Your task to perform on an android device: Open CNN.com Image 0: 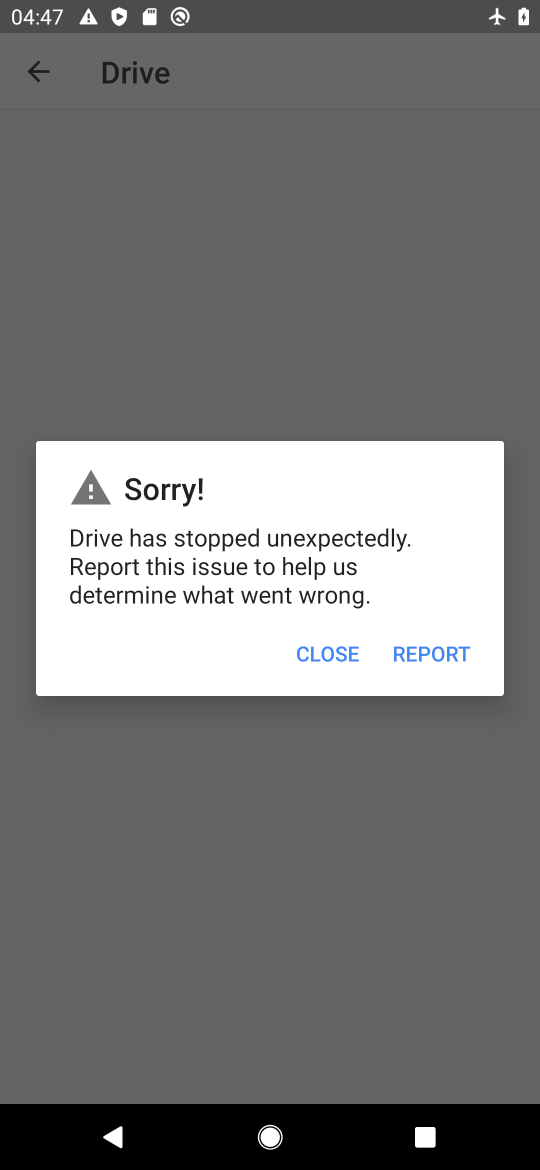
Step 0: press home button
Your task to perform on an android device: Open CNN.com Image 1: 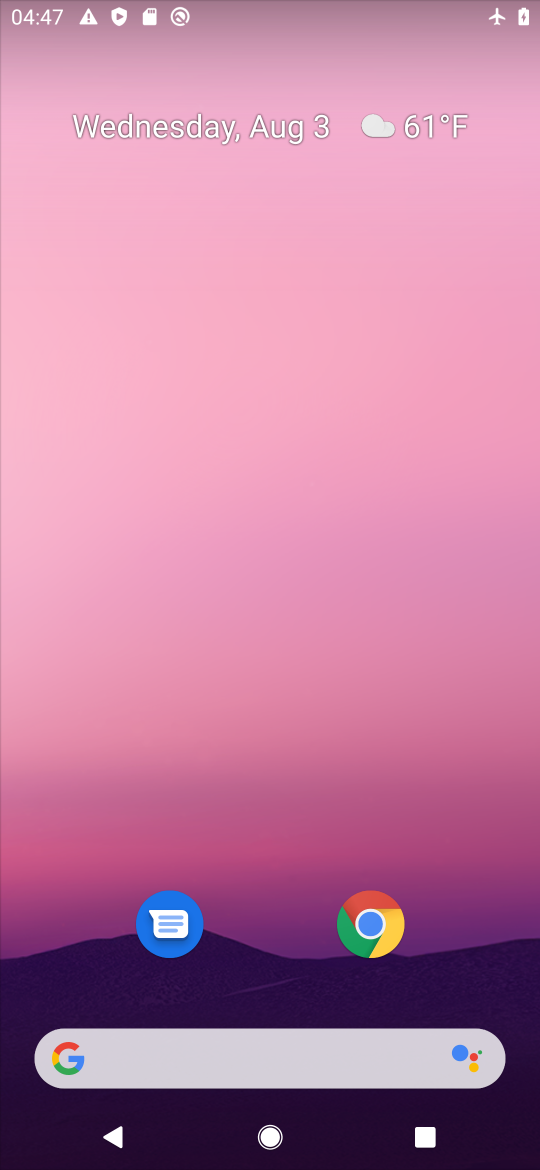
Step 1: click (390, 936)
Your task to perform on an android device: Open CNN.com Image 2: 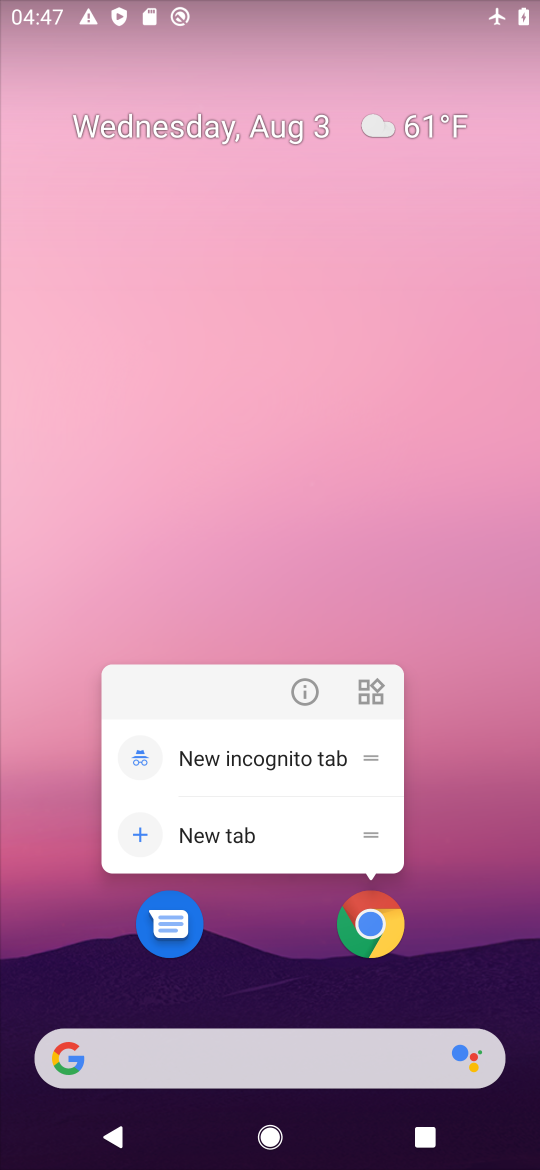
Step 2: click (384, 916)
Your task to perform on an android device: Open CNN.com Image 3: 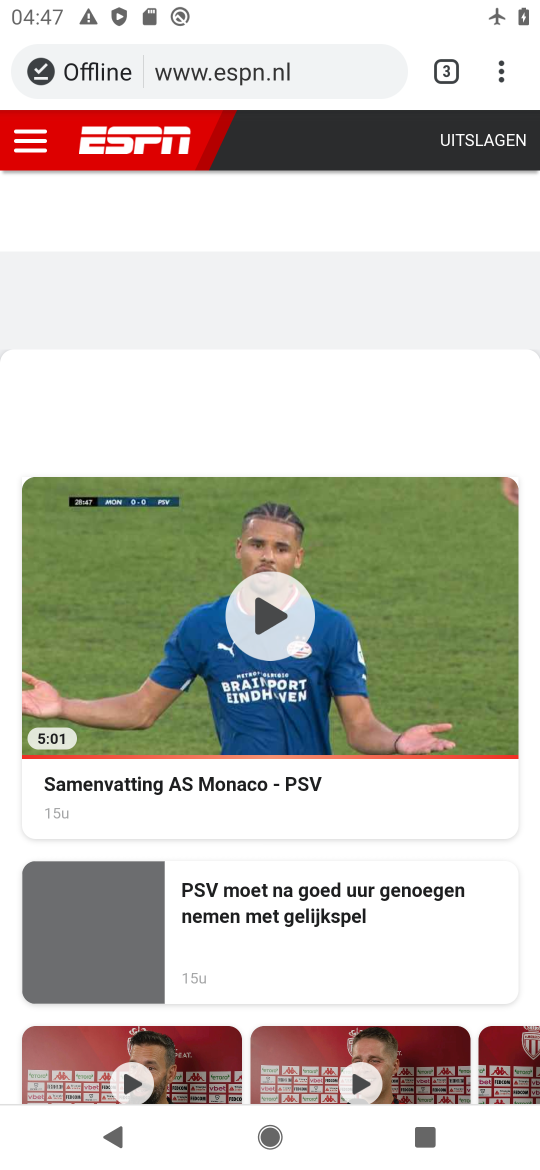
Step 3: click (433, 87)
Your task to perform on an android device: Open CNN.com Image 4: 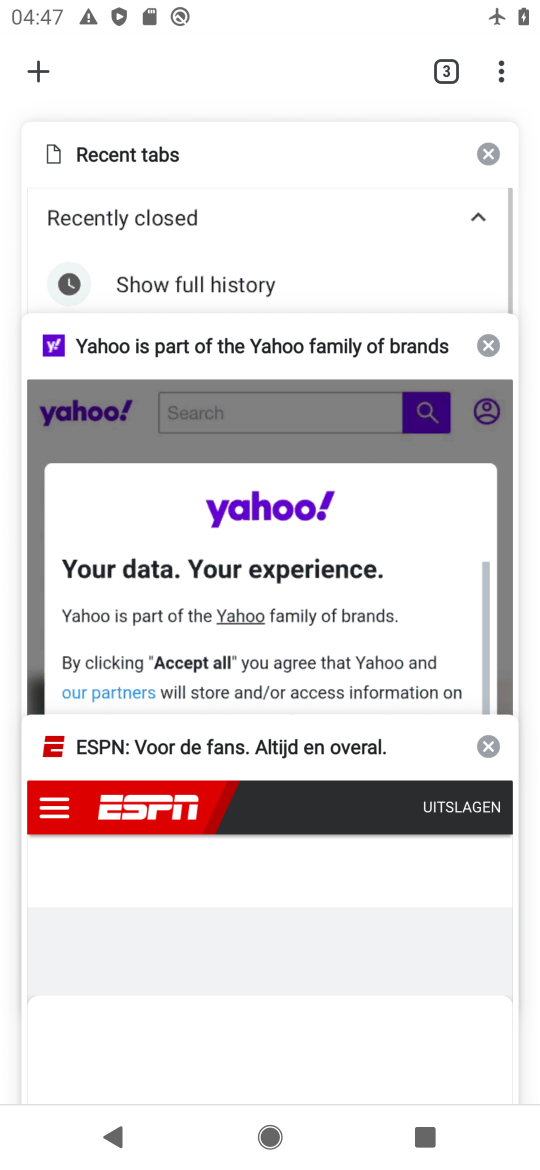
Step 4: click (51, 66)
Your task to perform on an android device: Open CNN.com Image 5: 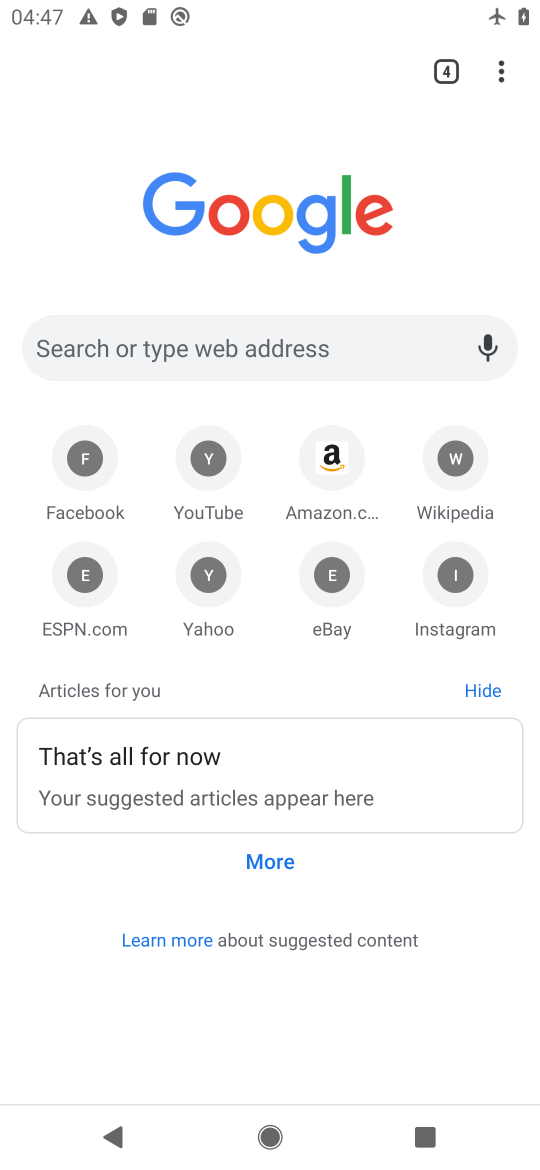
Step 5: click (196, 366)
Your task to perform on an android device: Open CNN.com Image 6: 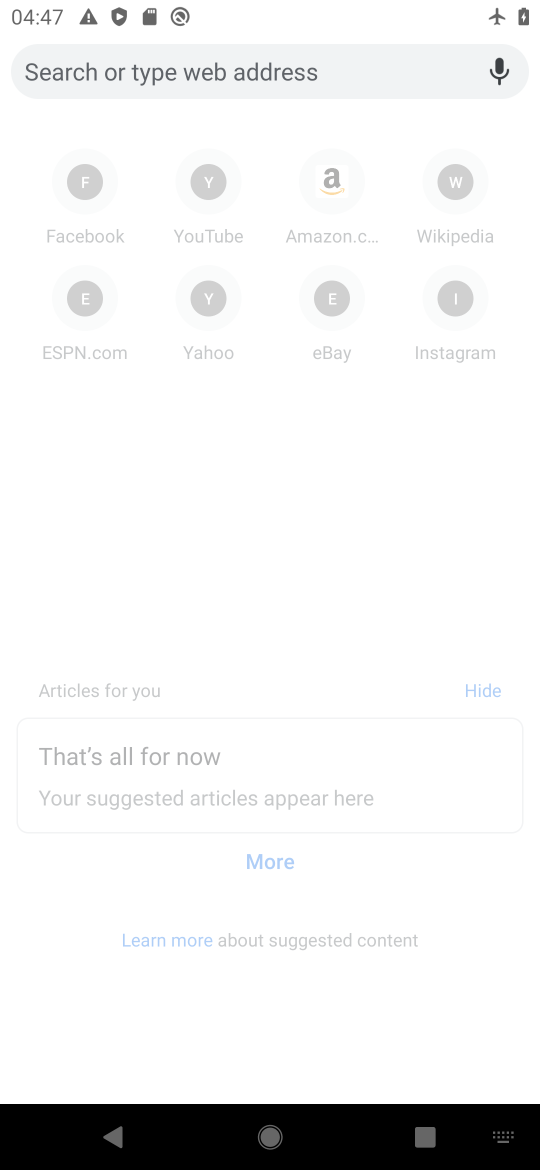
Step 6: type "CNN.com"
Your task to perform on an android device: Open CNN.com Image 7: 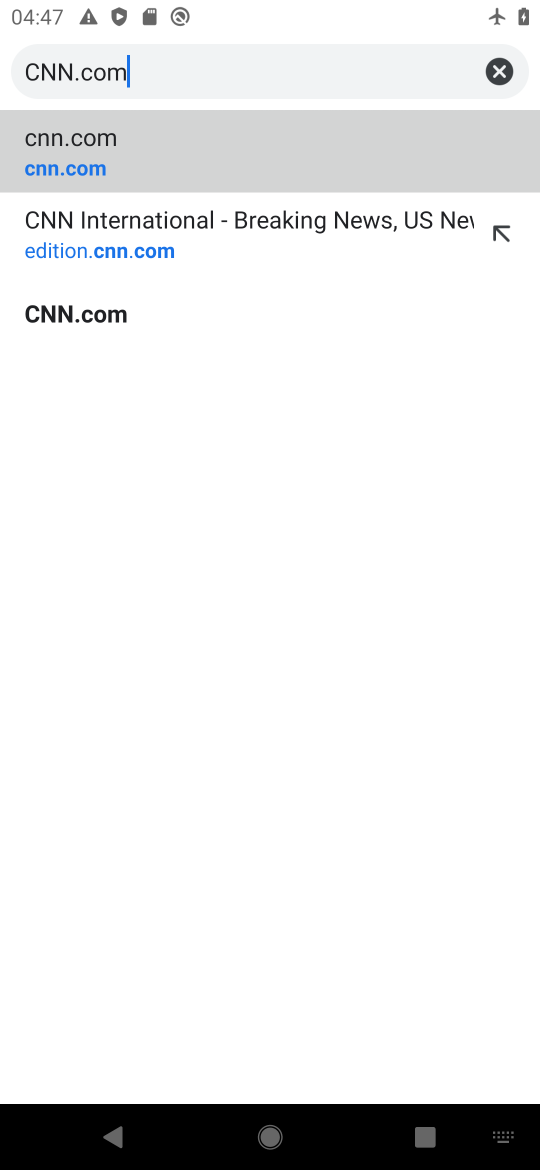
Step 7: type ""
Your task to perform on an android device: Open CNN.com Image 8: 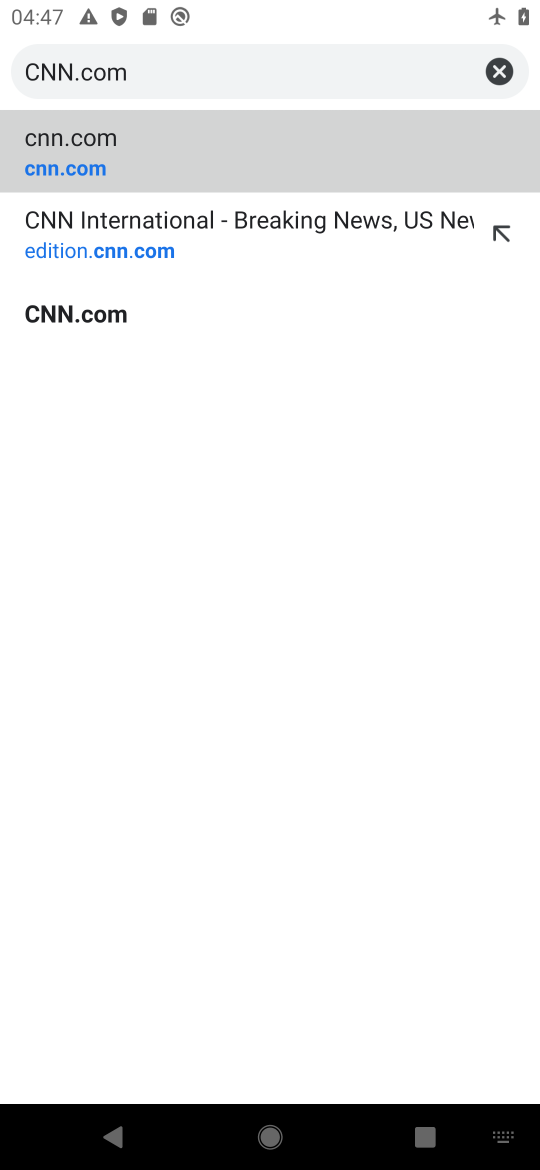
Step 8: click (194, 172)
Your task to perform on an android device: Open CNN.com Image 9: 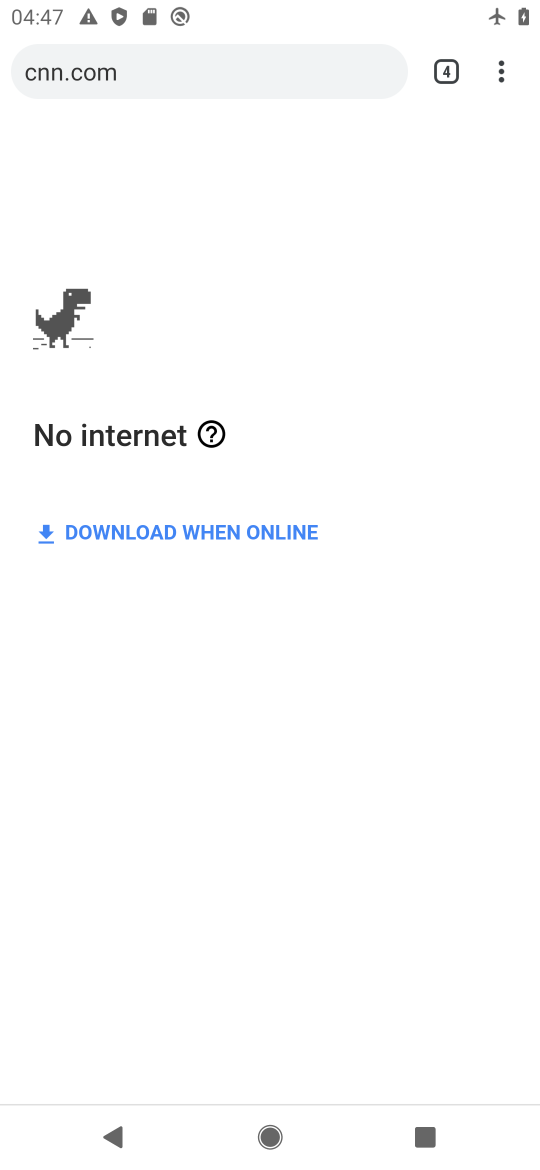
Step 9: task complete